Your task to perform on an android device: change text size in settings app Image 0: 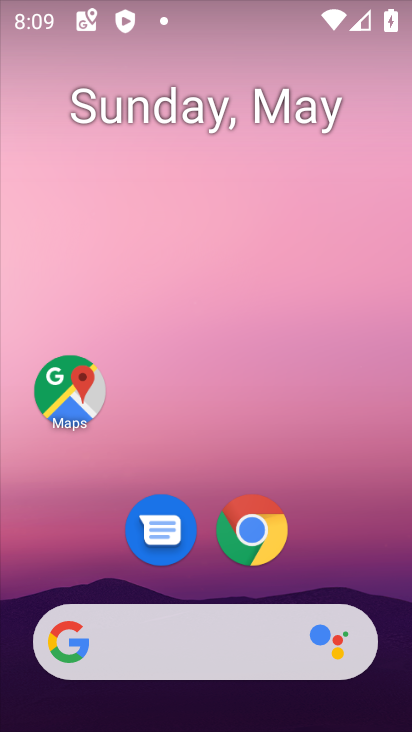
Step 0: drag from (350, 580) to (373, 8)
Your task to perform on an android device: change text size in settings app Image 1: 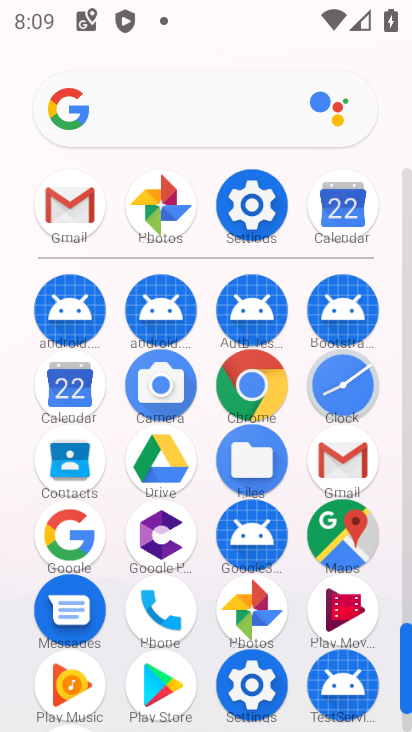
Step 1: click (253, 218)
Your task to perform on an android device: change text size in settings app Image 2: 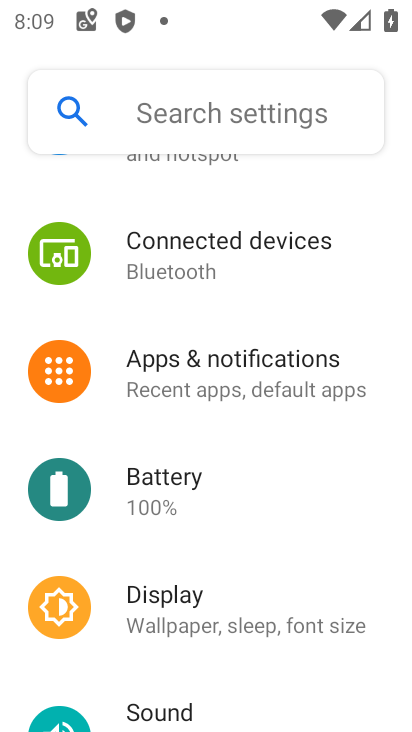
Step 2: click (166, 607)
Your task to perform on an android device: change text size in settings app Image 3: 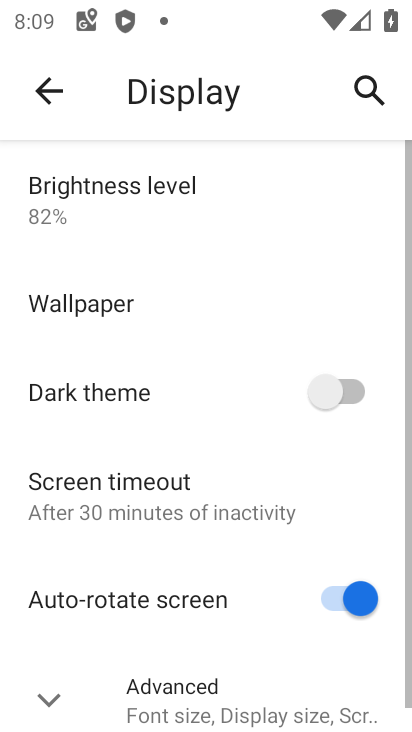
Step 3: drag from (166, 607) to (181, 103)
Your task to perform on an android device: change text size in settings app Image 4: 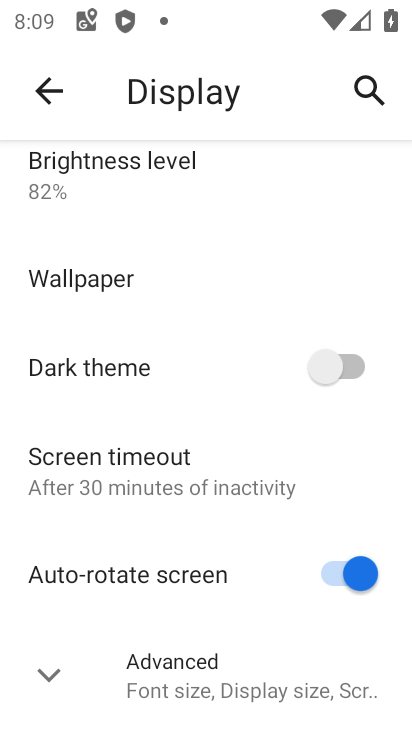
Step 4: click (46, 678)
Your task to perform on an android device: change text size in settings app Image 5: 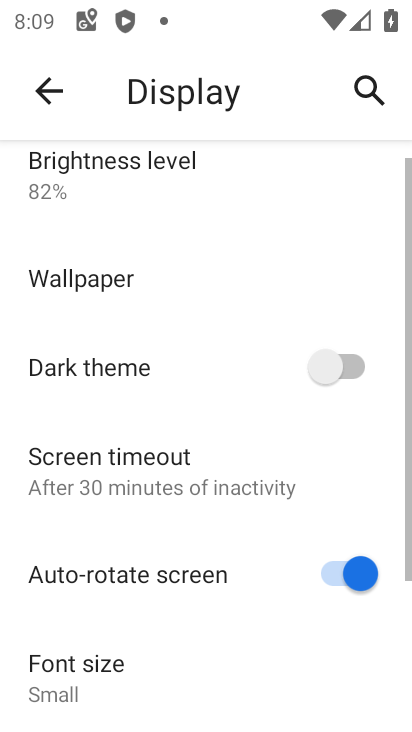
Step 5: drag from (149, 667) to (180, 284)
Your task to perform on an android device: change text size in settings app Image 6: 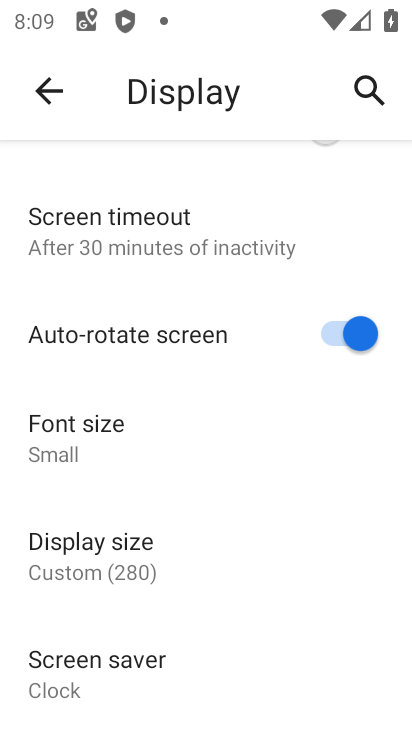
Step 6: click (51, 431)
Your task to perform on an android device: change text size in settings app Image 7: 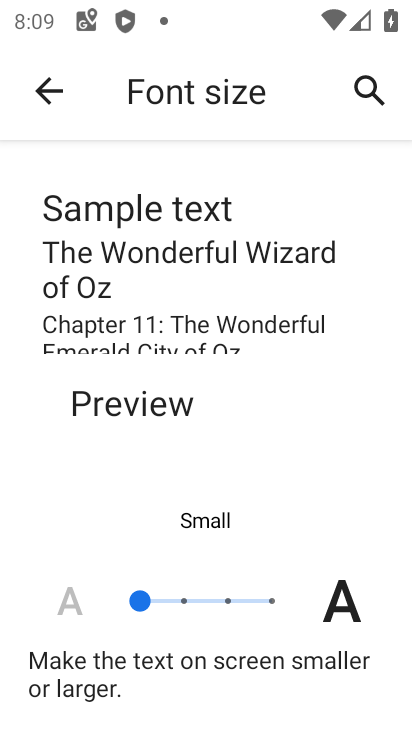
Step 7: click (186, 600)
Your task to perform on an android device: change text size in settings app Image 8: 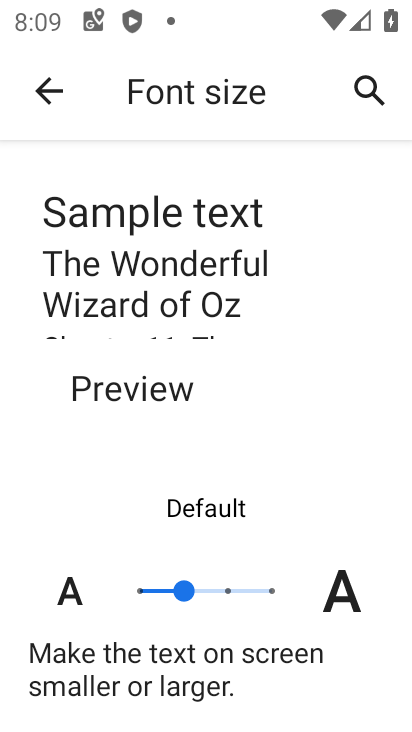
Step 8: task complete